Your task to perform on an android device: turn off wifi Image 0: 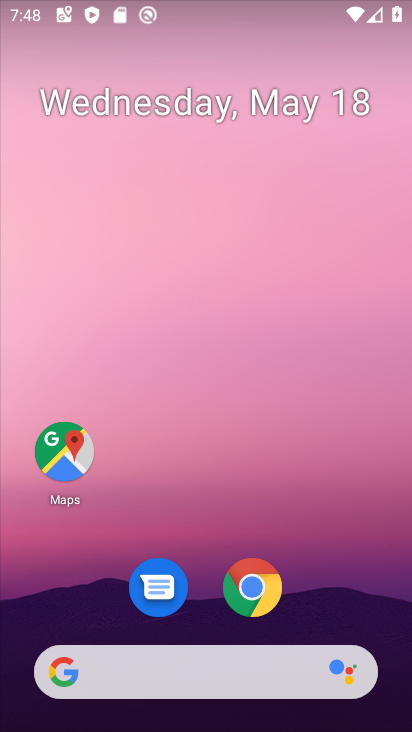
Step 0: drag from (262, 9) to (293, 533)
Your task to perform on an android device: turn off wifi Image 1: 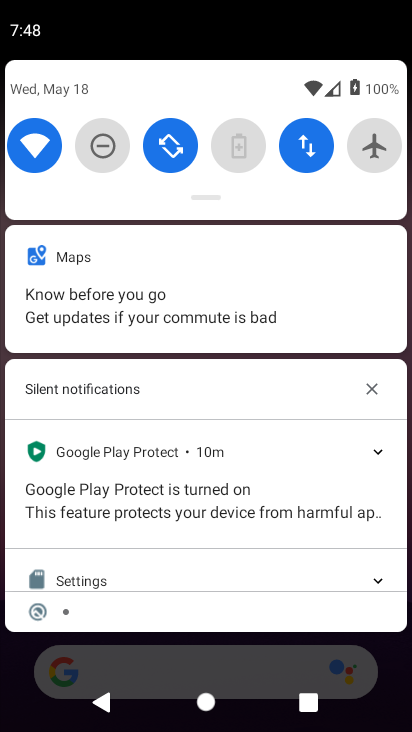
Step 1: click (34, 141)
Your task to perform on an android device: turn off wifi Image 2: 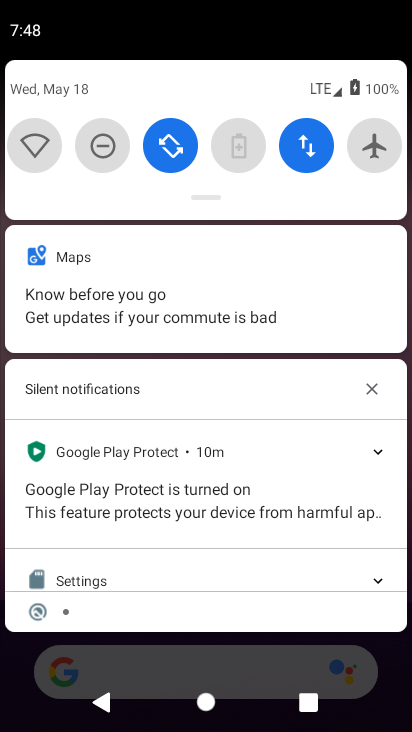
Step 2: task complete